Your task to perform on an android device: turn off notifications in google photos Image 0: 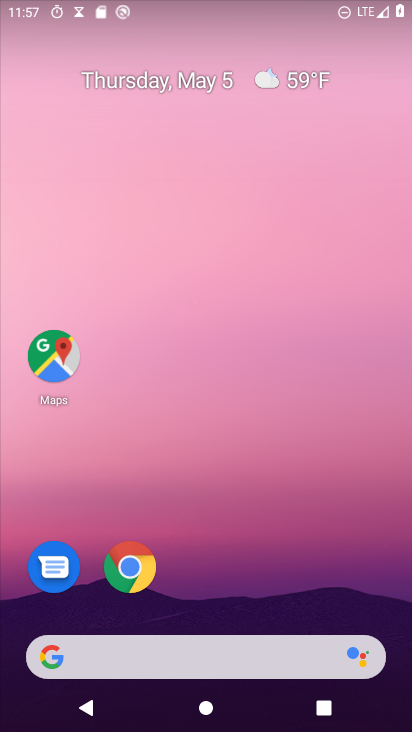
Step 0: drag from (311, 579) to (325, 10)
Your task to perform on an android device: turn off notifications in google photos Image 1: 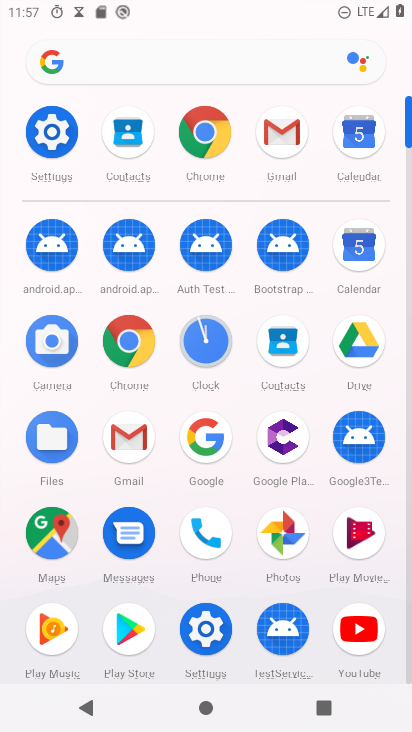
Step 1: click (280, 528)
Your task to perform on an android device: turn off notifications in google photos Image 2: 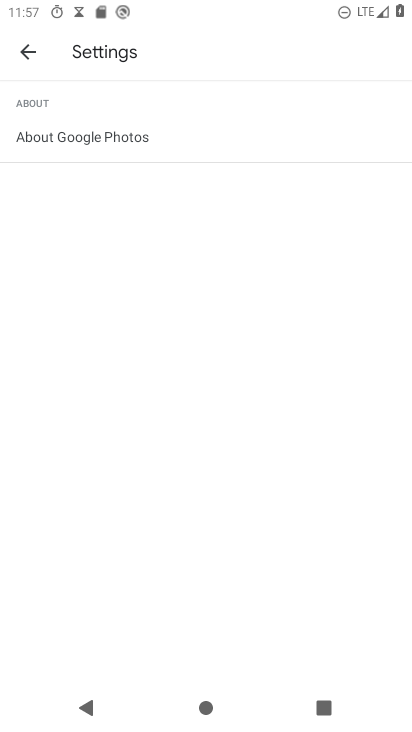
Step 2: click (31, 55)
Your task to perform on an android device: turn off notifications in google photos Image 3: 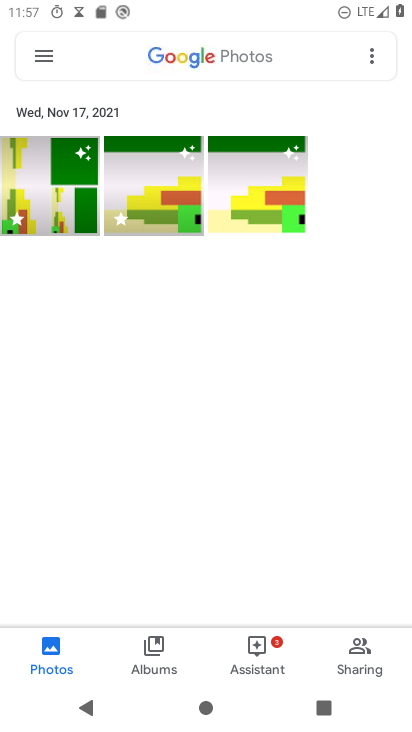
Step 3: click (33, 54)
Your task to perform on an android device: turn off notifications in google photos Image 4: 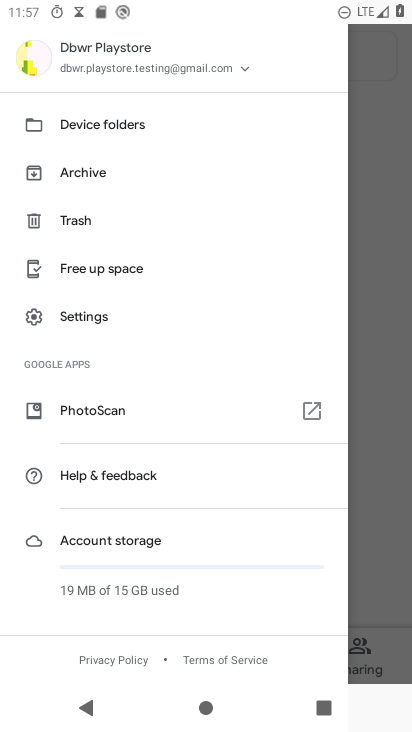
Step 4: click (85, 318)
Your task to perform on an android device: turn off notifications in google photos Image 5: 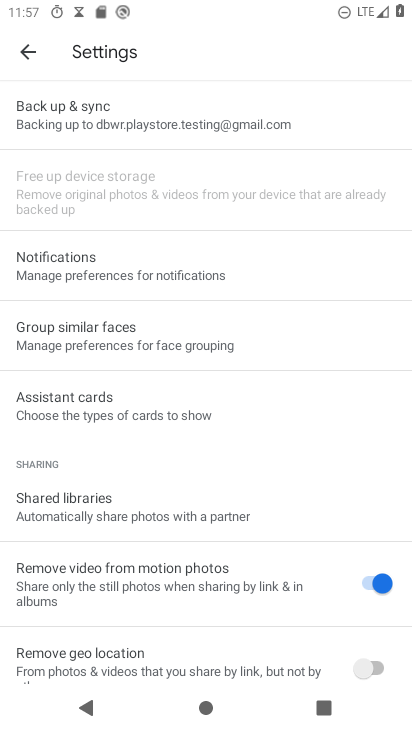
Step 5: click (90, 279)
Your task to perform on an android device: turn off notifications in google photos Image 6: 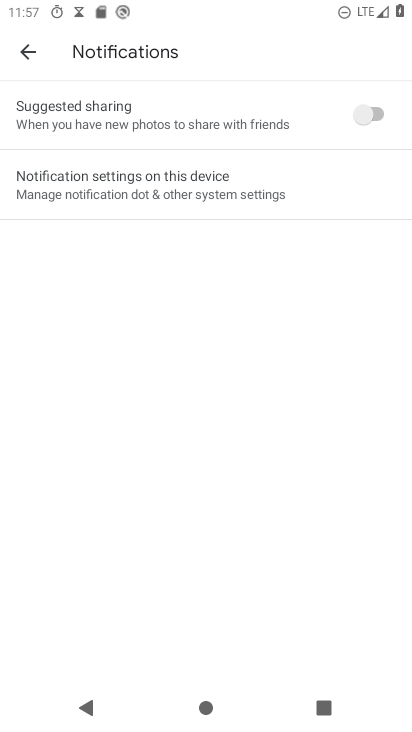
Step 6: click (177, 204)
Your task to perform on an android device: turn off notifications in google photos Image 7: 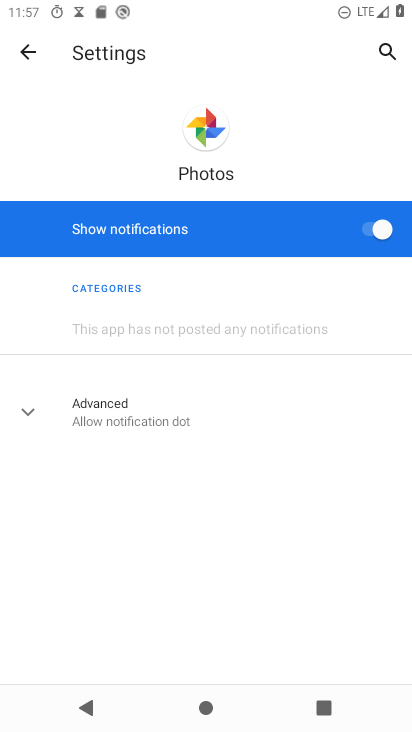
Step 7: click (378, 236)
Your task to perform on an android device: turn off notifications in google photos Image 8: 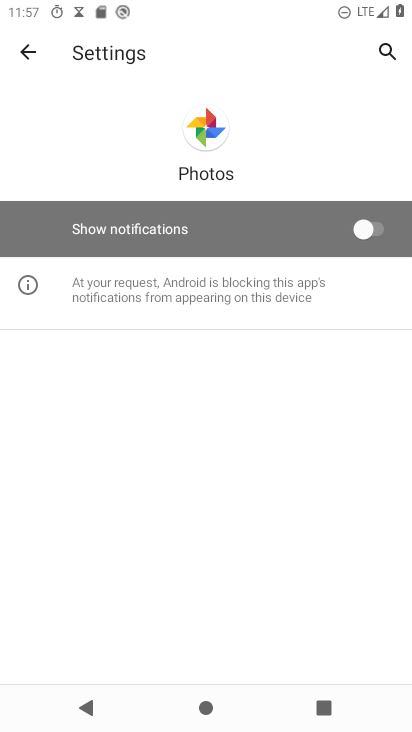
Step 8: task complete